Your task to perform on an android device: Search for Italian restaurants on Maps Image 0: 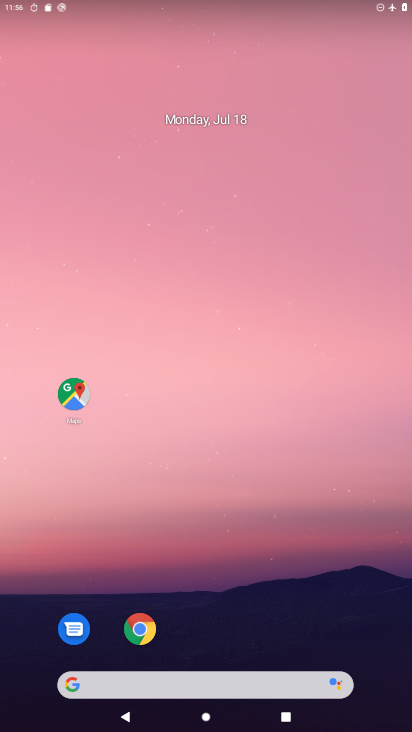
Step 0: drag from (280, 222) to (270, 109)
Your task to perform on an android device: Search for Italian restaurants on Maps Image 1: 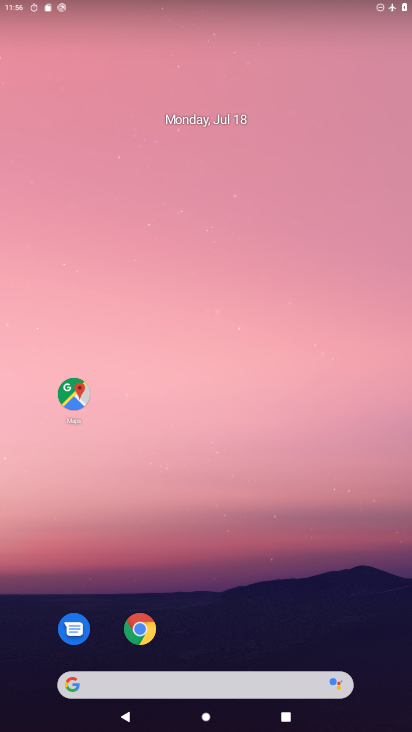
Step 1: drag from (258, 550) to (210, 117)
Your task to perform on an android device: Search for Italian restaurants on Maps Image 2: 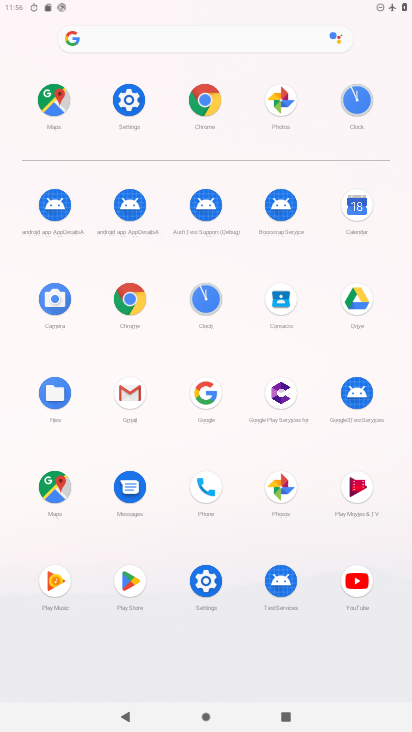
Step 2: click (55, 100)
Your task to perform on an android device: Search for Italian restaurants on Maps Image 3: 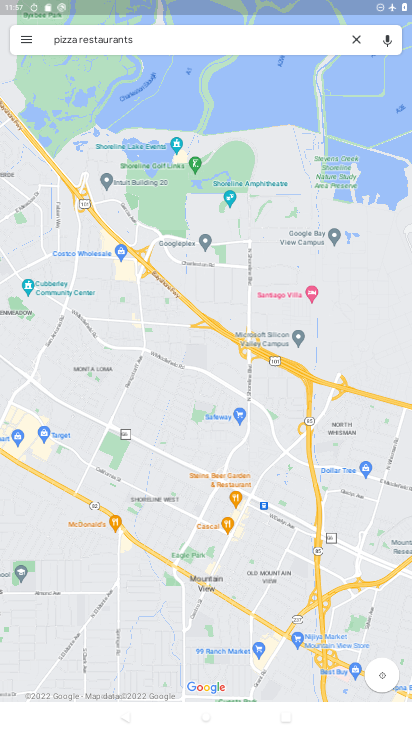
Step 3: click (362, 36)
Your task to perform on an android device: Search for Italian restaurants on Maps Image 4: 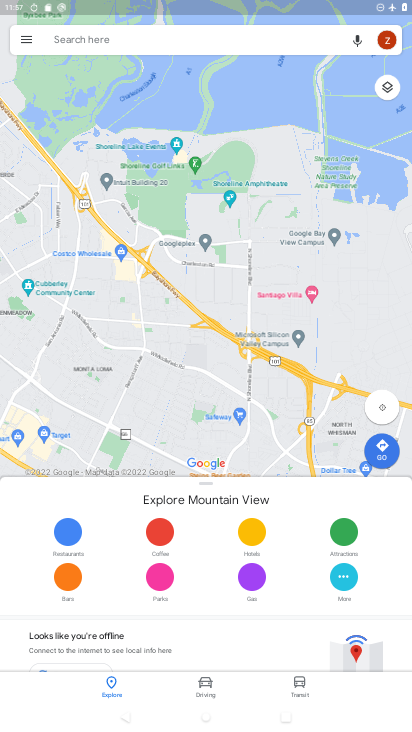
Step 4: click (284, 35)
Your task to perform on an android device: Search for Italian restaurants on Maps Image 5: 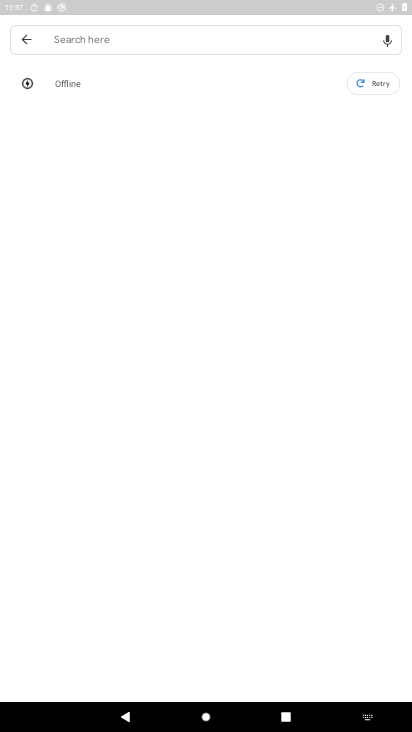
Step 5: type "Italian restaurants"
Your task to perform on an android device: Search for Italian restaurants on Maps Image 6: 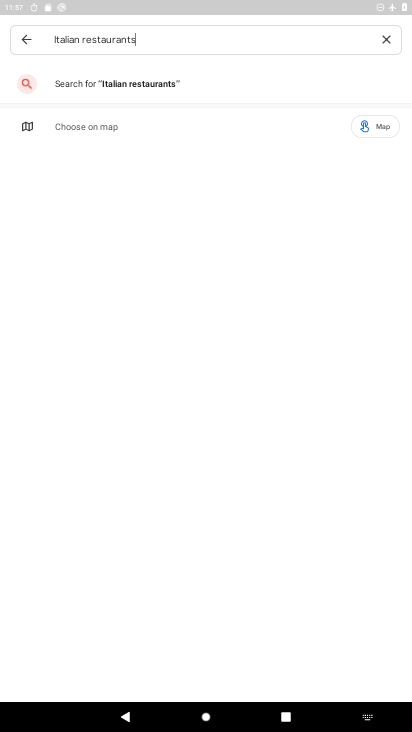
Step 6: click (149, 80)
Your task to perform on an android device: Search for Italian restaurants on Maps Image 7: 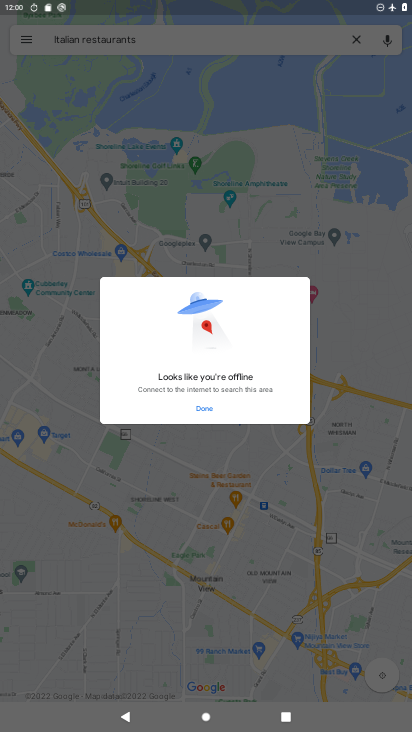
Step 7: task complete